Your task to perform on an android device: Open battery settings Image 0: 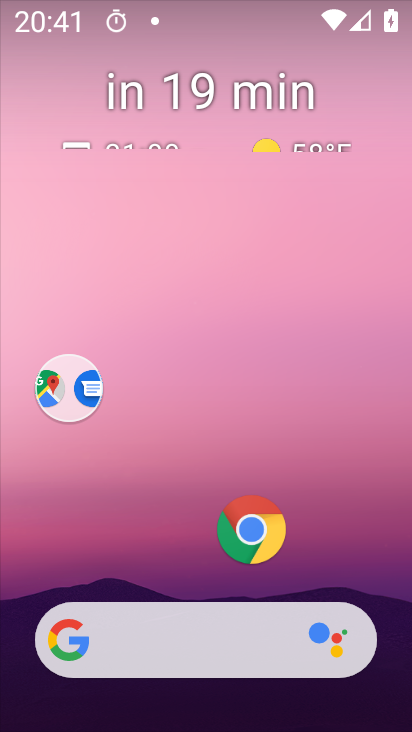
Step 0: drag from (190, 570) to (160, 112)
Your task to perform on an android device: Open battery settings Image 1: 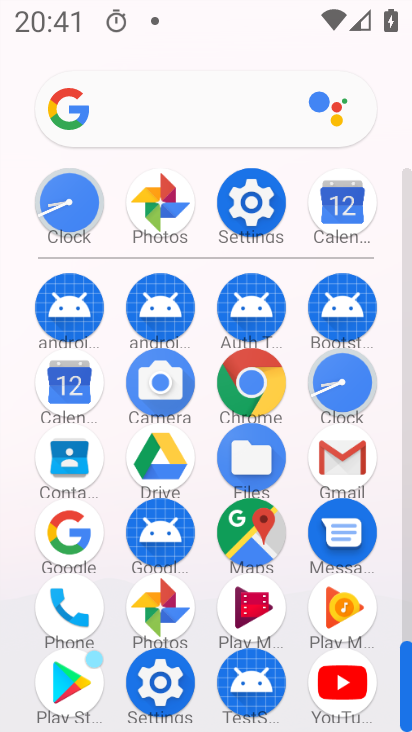
Step 1: click (252, 196)
Your task to perform on an android device: Open battery settings Image 2: 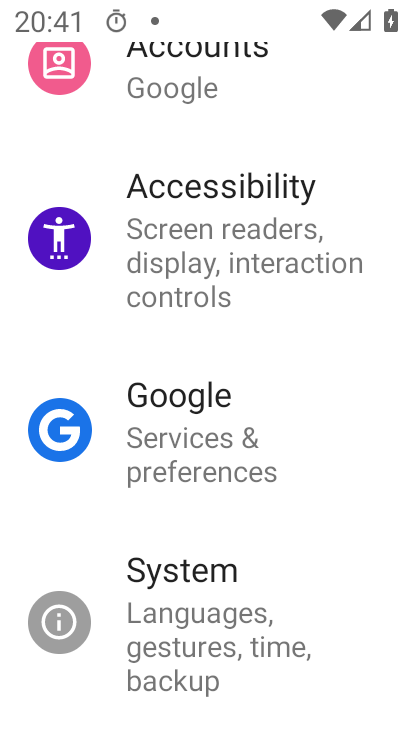
Step 2: drag from (252, 196) to (282, 730)
Your task to perform on an android device: Open battery settings Image 3: 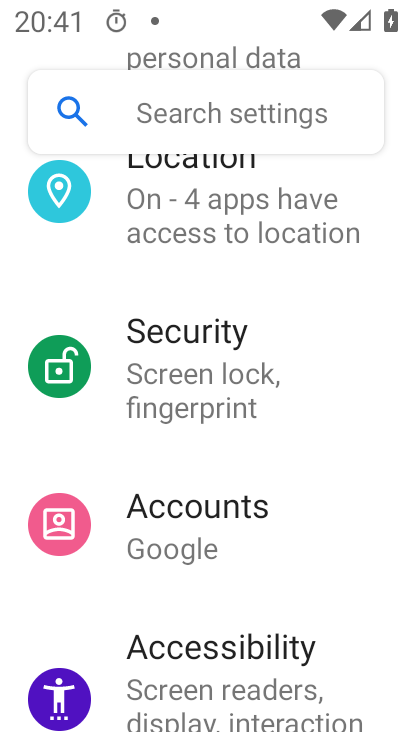
Step 3: drag from (195, 263) to (281, 710)
Your task to perform on an android device: Open battery settings Image 4: 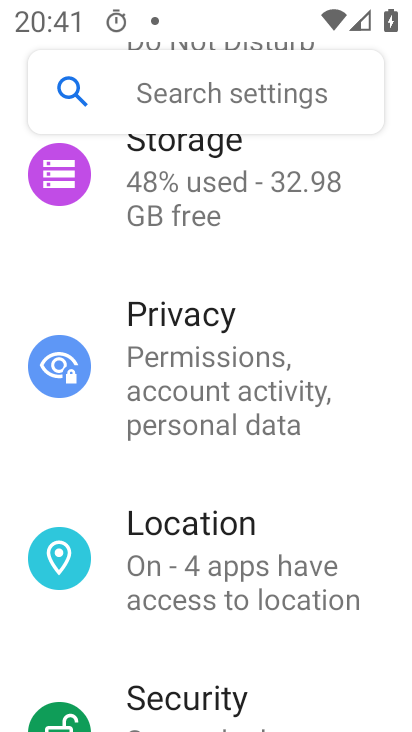
Step 4: drag from (182, 294) to (328, 706)
Your task to perform on an android device: Open battery settings Image 5: 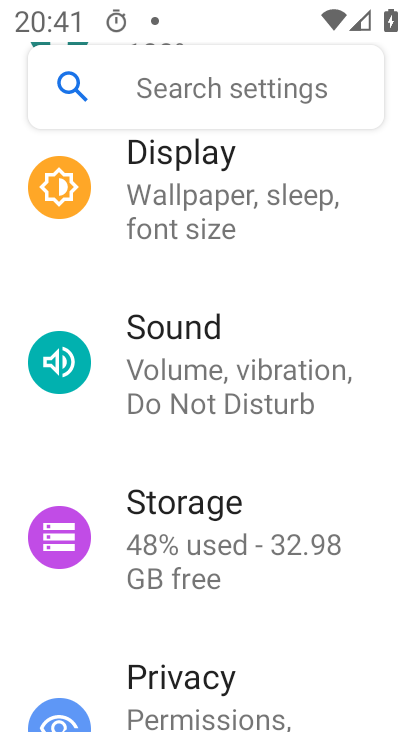
Step 5: drag from (143, 230) to (187, 624)
Your task to perform on an android device: Open battery settings Image 6: 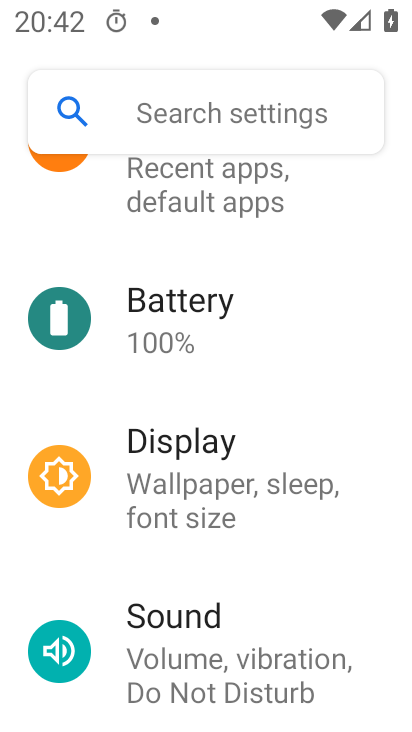
Step 6: click (219, 306)
Your task to perform on an android device: Open battery settings Image 7: 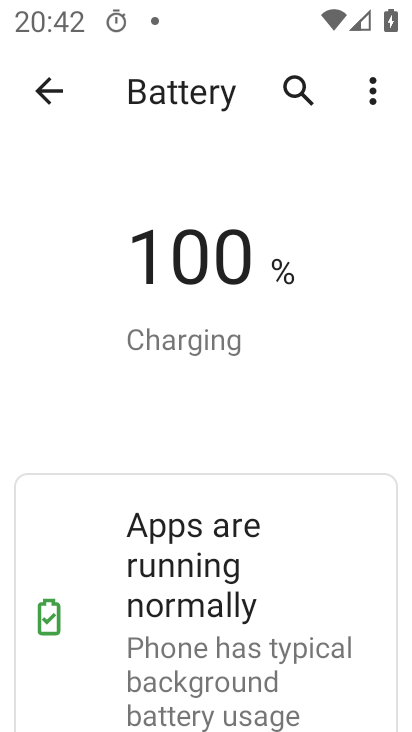
Step 7: task complete